Your task to perform on an android device: What's the weather today? Image 0: 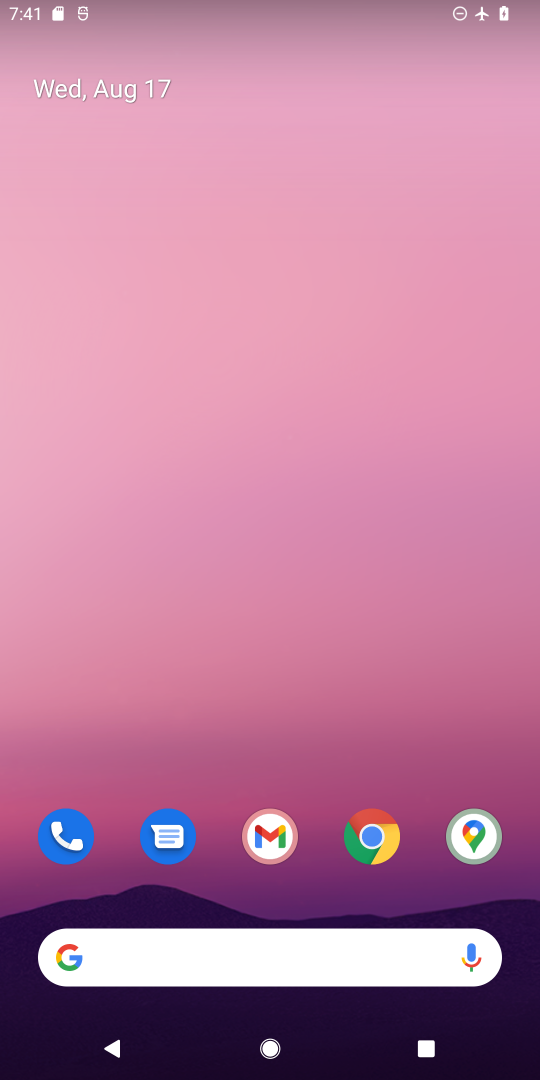
Step 0: drag from (294, 946) to (263, 316)
Your task to perform on an android device: What's the weather today? Image 1: 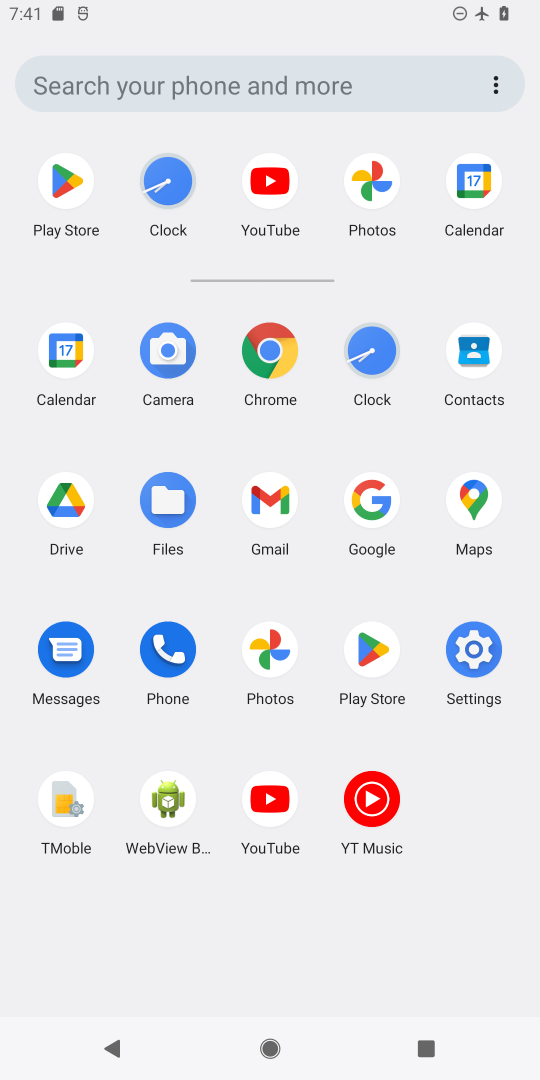
Step 1: click (277, 340)
Your task to perform on an android device: What's the weather today? Image 2: 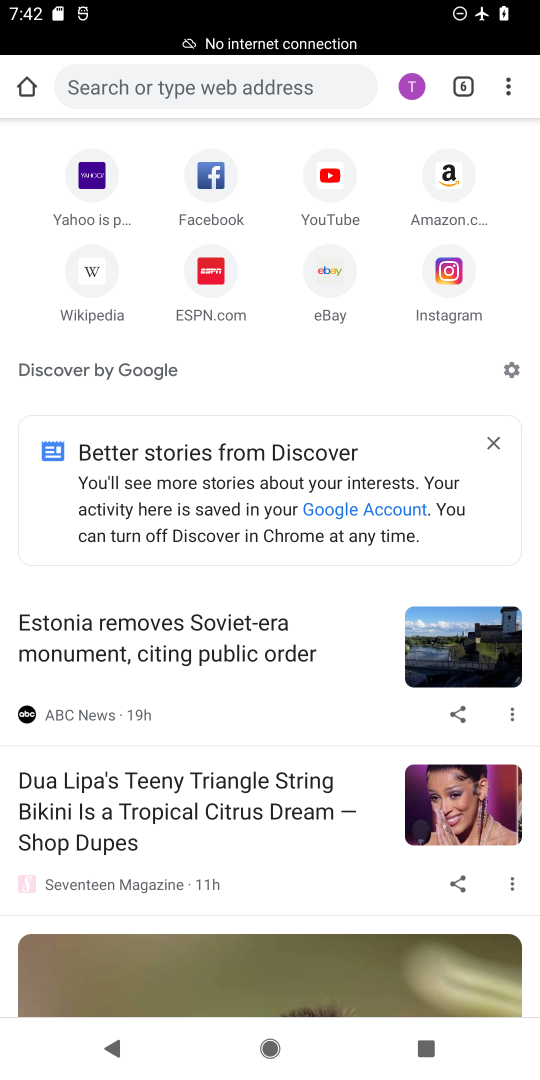
Step 2: click (231, 74)
Your task to perform on an android device: What's the weather today? Image 3: 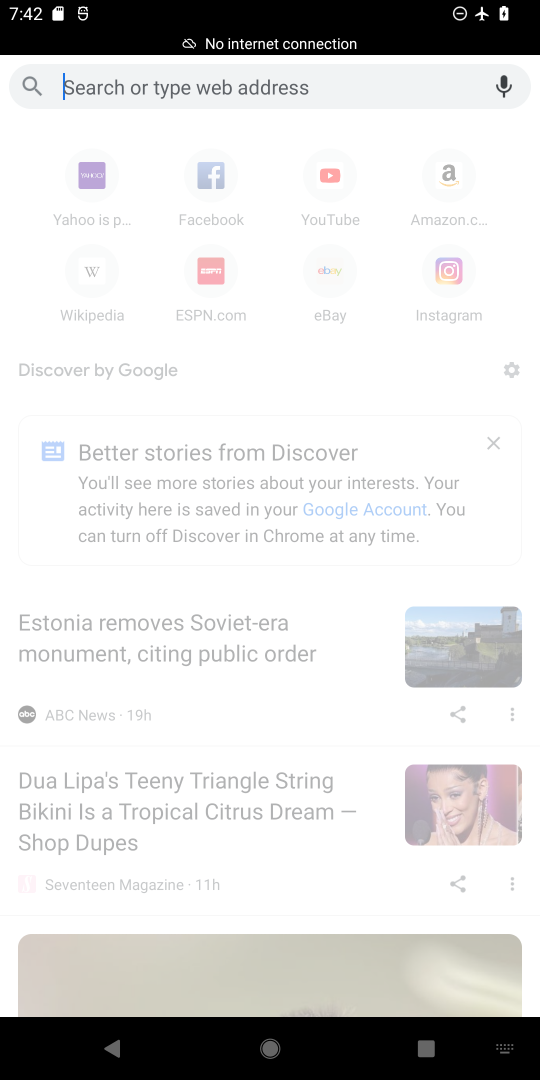
Step 3: type "What's the weather today? "
Your task to perform on an android device: What's the weather today? Image 4: 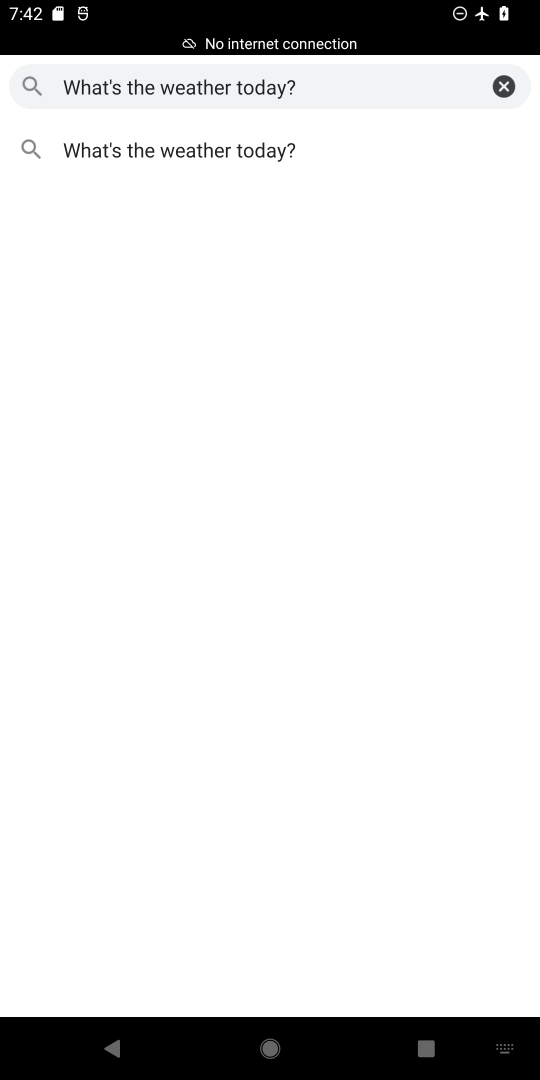
Step 4: click (227, 137)
Your task to perform on an android device: What's the weather today? Image 5: 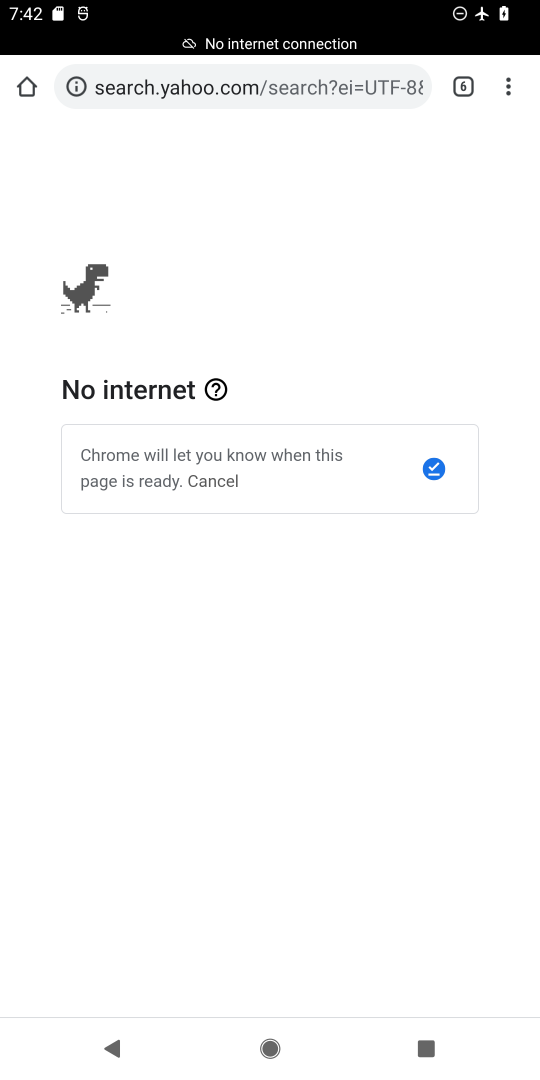
Step 5: task complete